Your task to perform on an android device: Open settings on Google Maps Image 0: 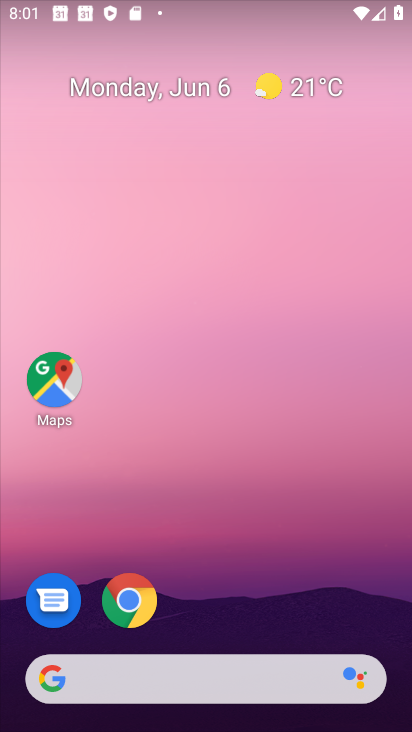
Step 0: click (50, 392)
Your task to perform on an android device: Open settings on Google Maps Image 1: 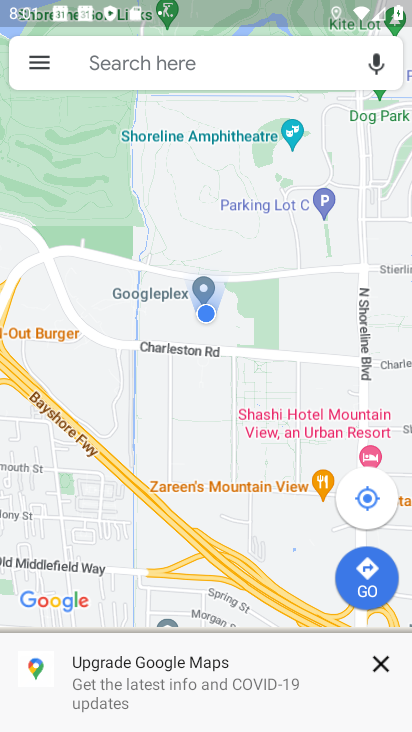
Step 1: click (33, 64)
Your task to perform on an android device: Open settings on Google Maps Image 2: 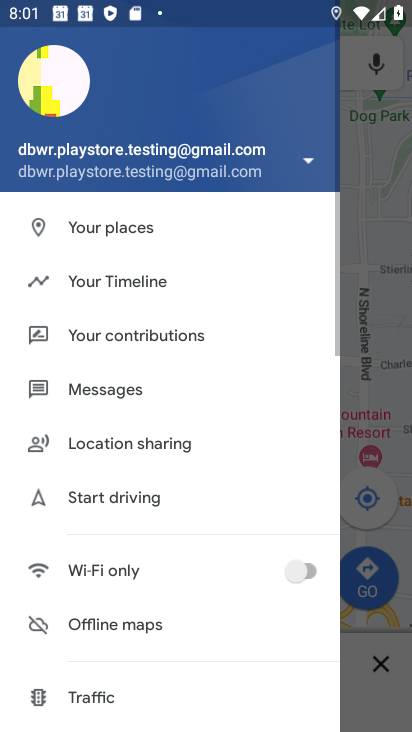
Step 2: drag from (142, 570) to (203, 242)
Your task to perform on an android device: Open settings on Google Maps Image 3: 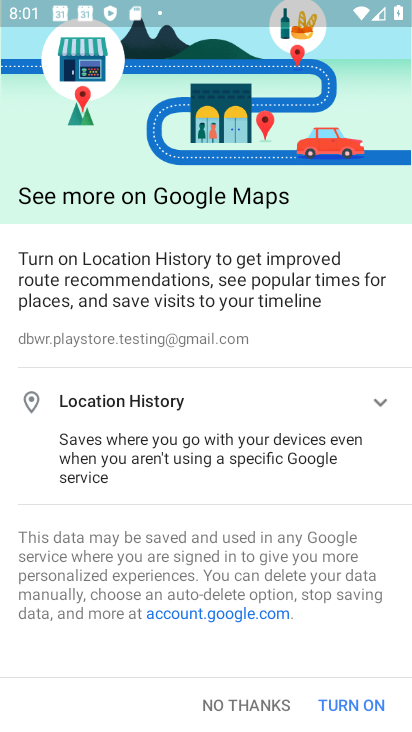
Step 3: click (227, 703)
Your task to perform on an android device: Open settings on Google Maps Image 4: 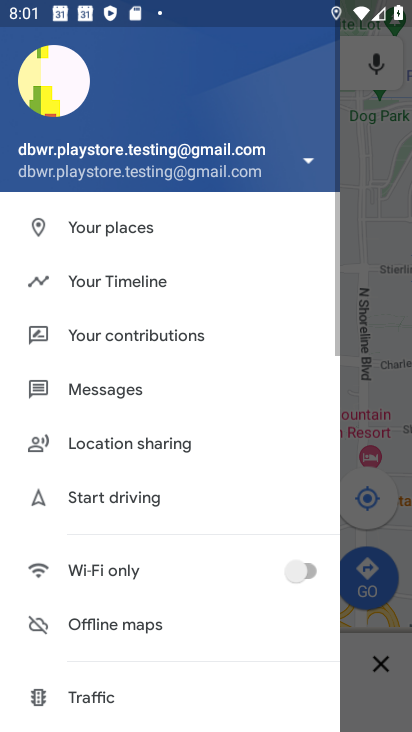
Step 4: drag from (125, 592) to (191, 295)
Your task to perform on an android device: Open settings on Google Maps Image 5: 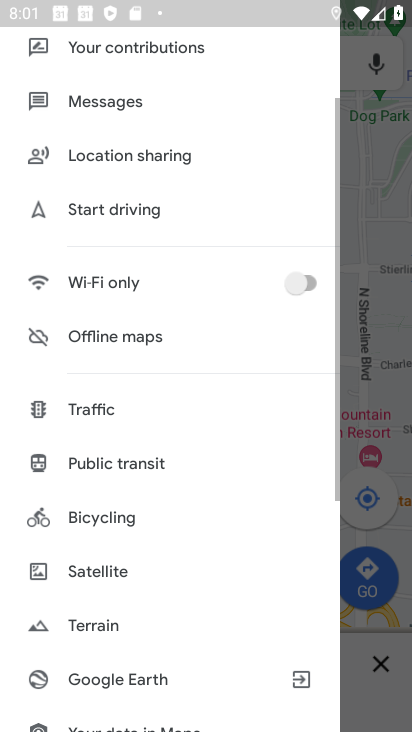
Step 5: drag from (130, 654) to (196, 217)
Your task to perform on an android device: Open settings on Google Maps Image 6: 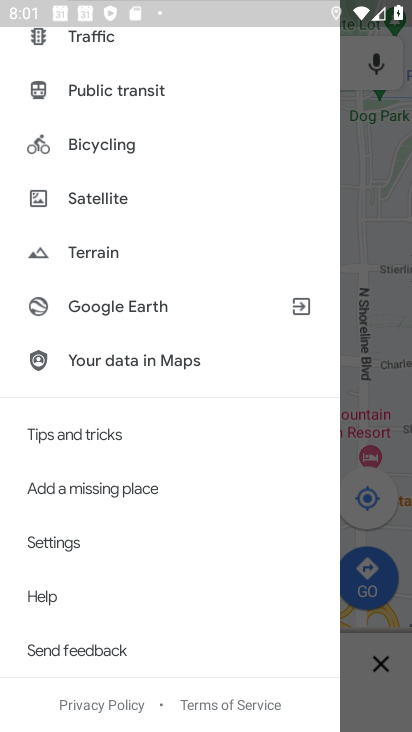
Step 6: click (64, 542)
Your task to perform on an android device: Open settings on Google Maps Image 7: 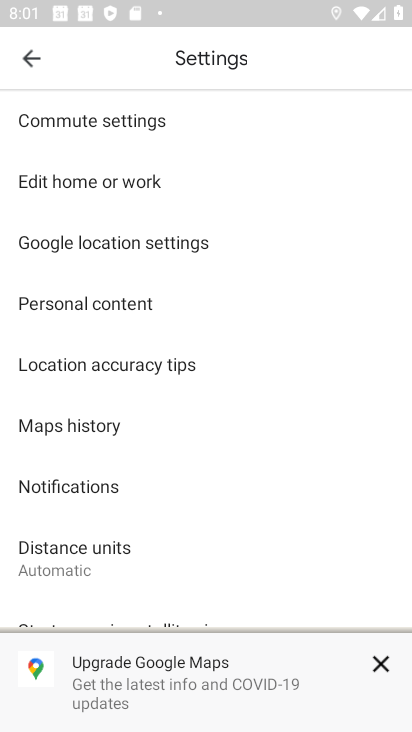
Step 7: drag from (239, 551) to (276, 133)
Your task to perform on an android device: Open settings on Google Maps Image 8: 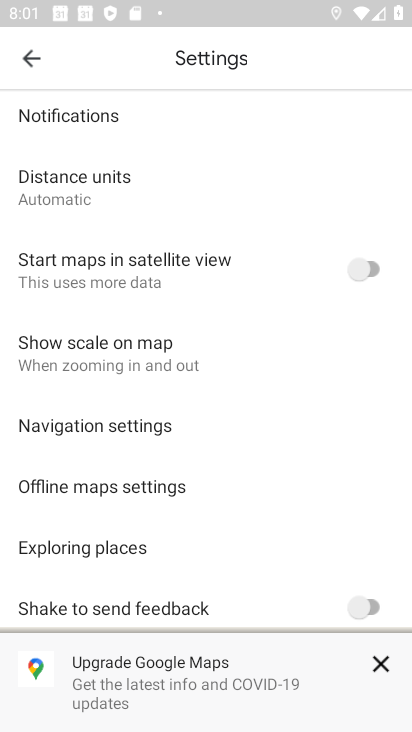
Step 8: click (379, 655)
Your task to perform on an android device: Open settings on Google Maps Image 9: 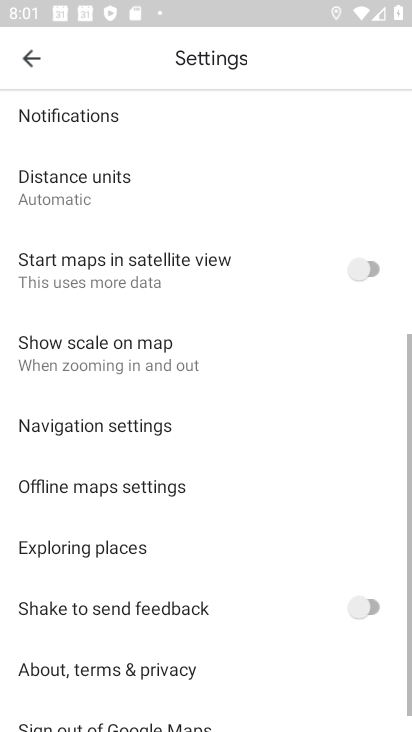
Step 9: task complete